Your task to perform on an android device: turn on sleep mode Image 0: 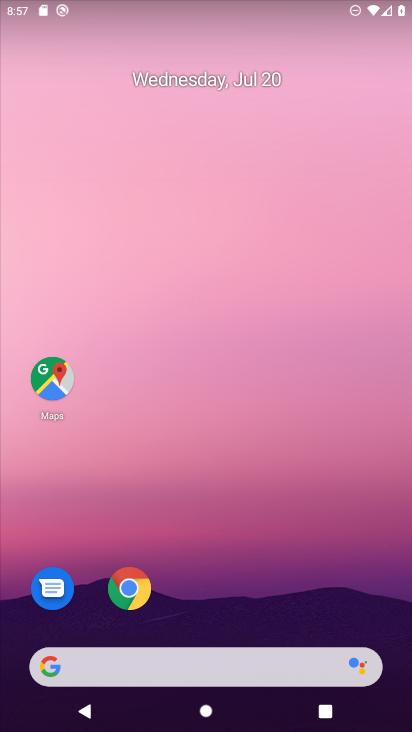
Step 0: drag from (208, 618) to (237, 37)
Your task to perform on an android device: turn on sleep mode Image 1: 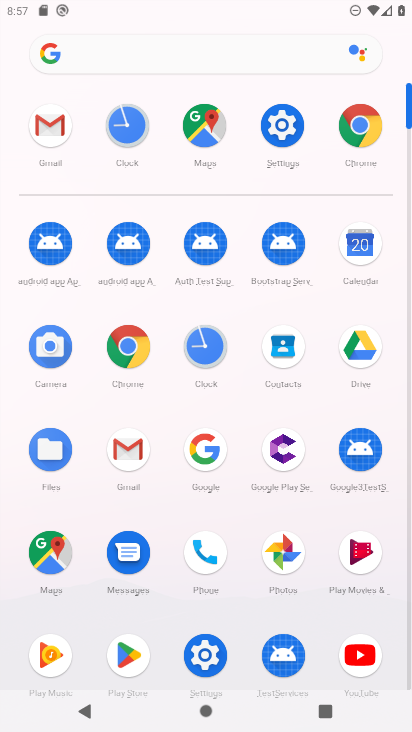
Step 1: click (283, 108)
Your task to perform on an android device: turn on sleep mode Image 2: 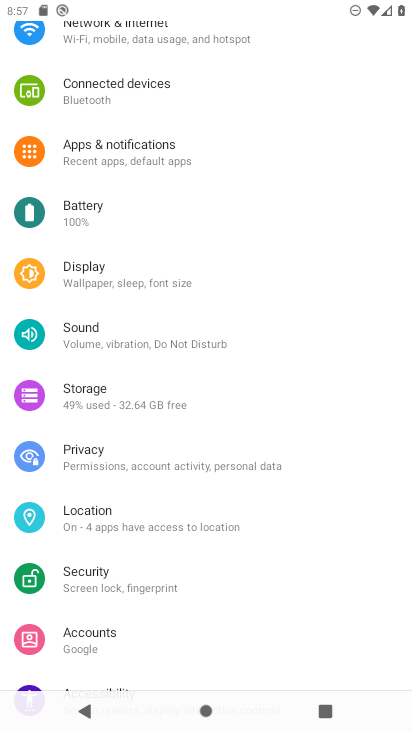
Step 2: task complete